Your task to perform on an android device: install app "Clock" Image 0: 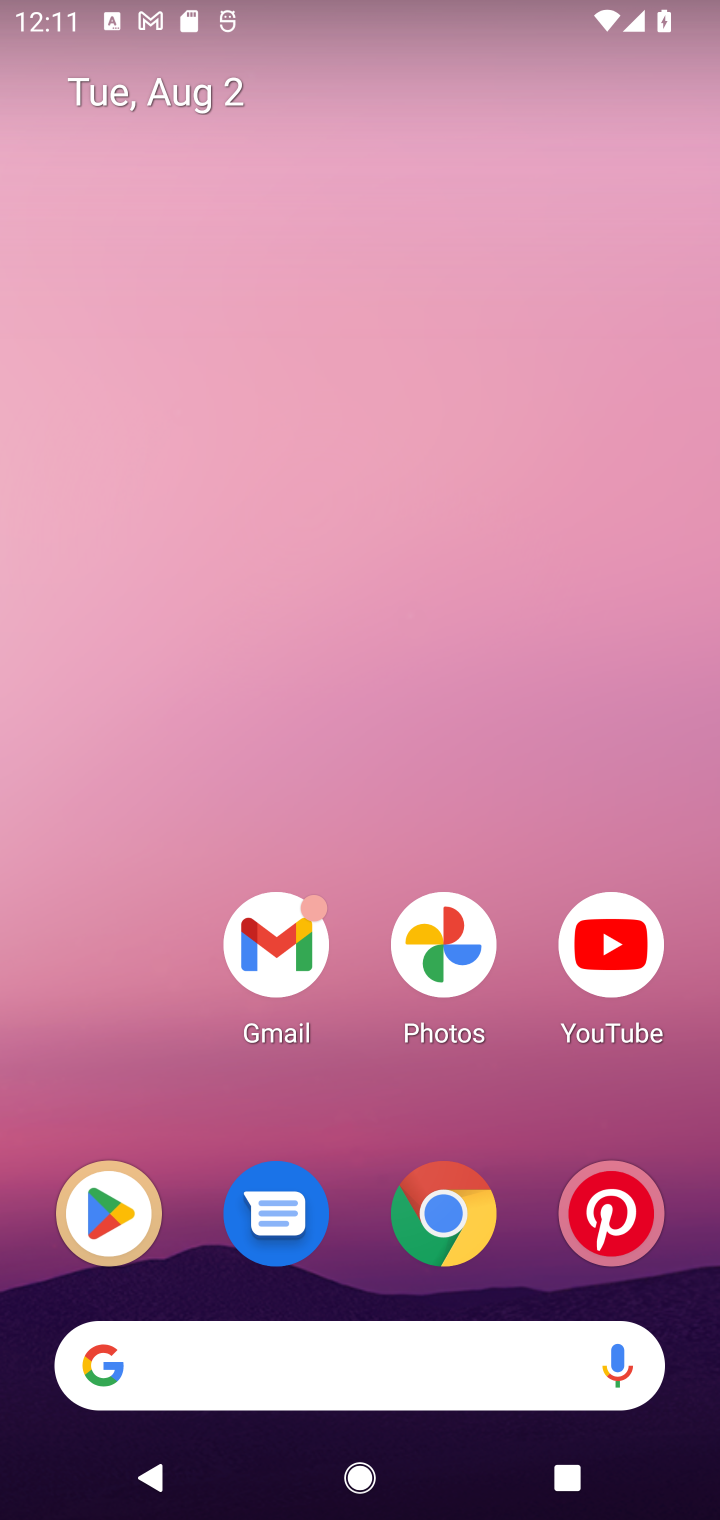
Step 0: click (136, 1216)
Your task to perform on an android device: install app "Clock" Image 1: 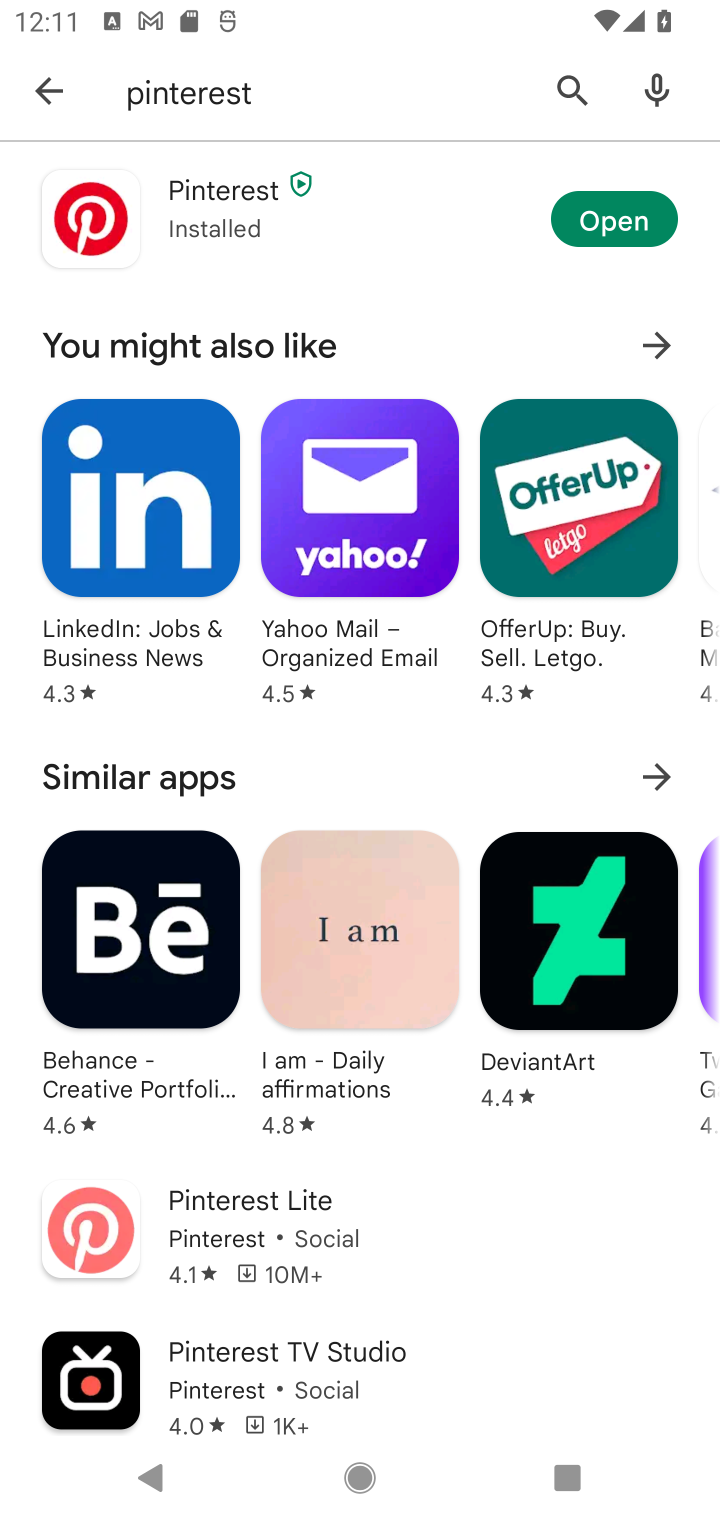
Step 1: click (50, 88)
Your task to perform on an android device: install app "Clock" Image 2: 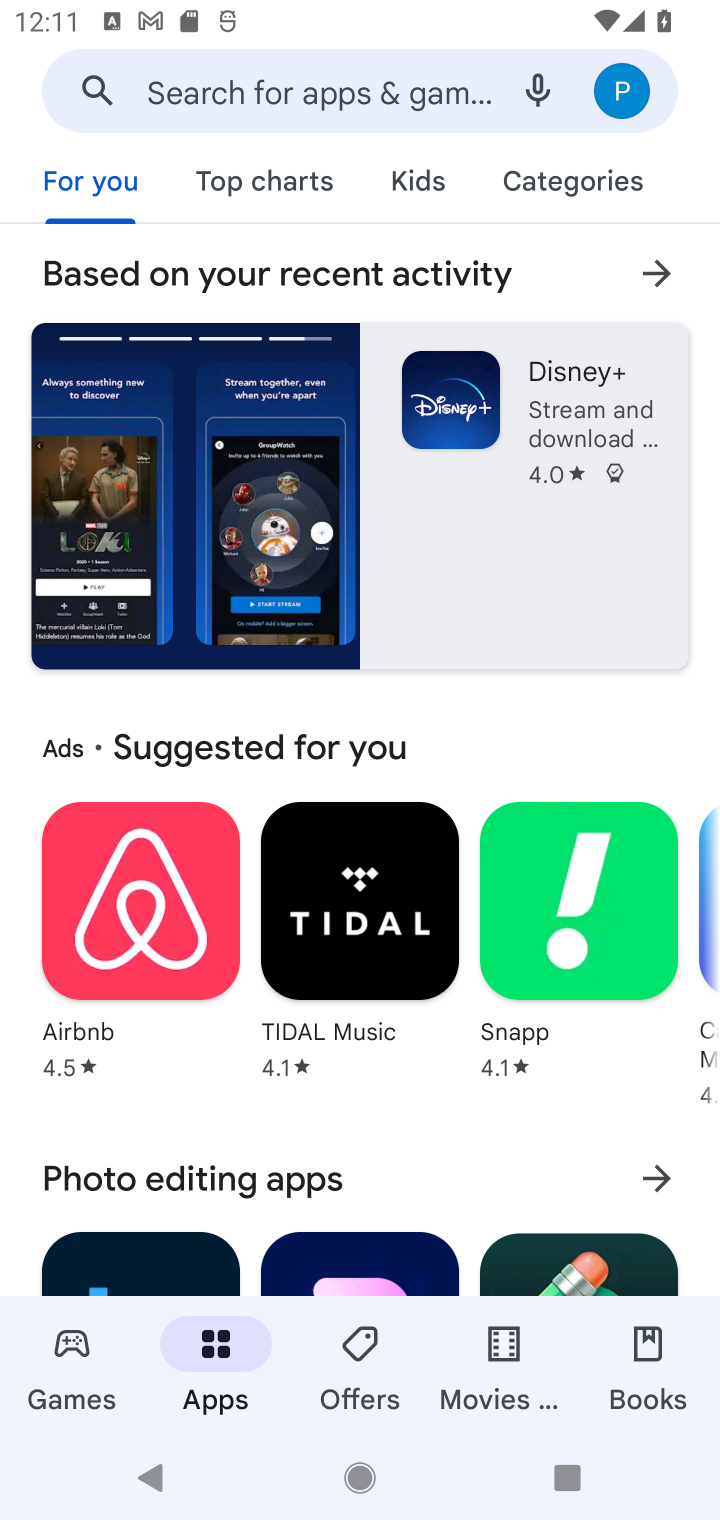
Step 2: click (177, 107)
Your task to perform on an android device: install app "Clock" Image 3: 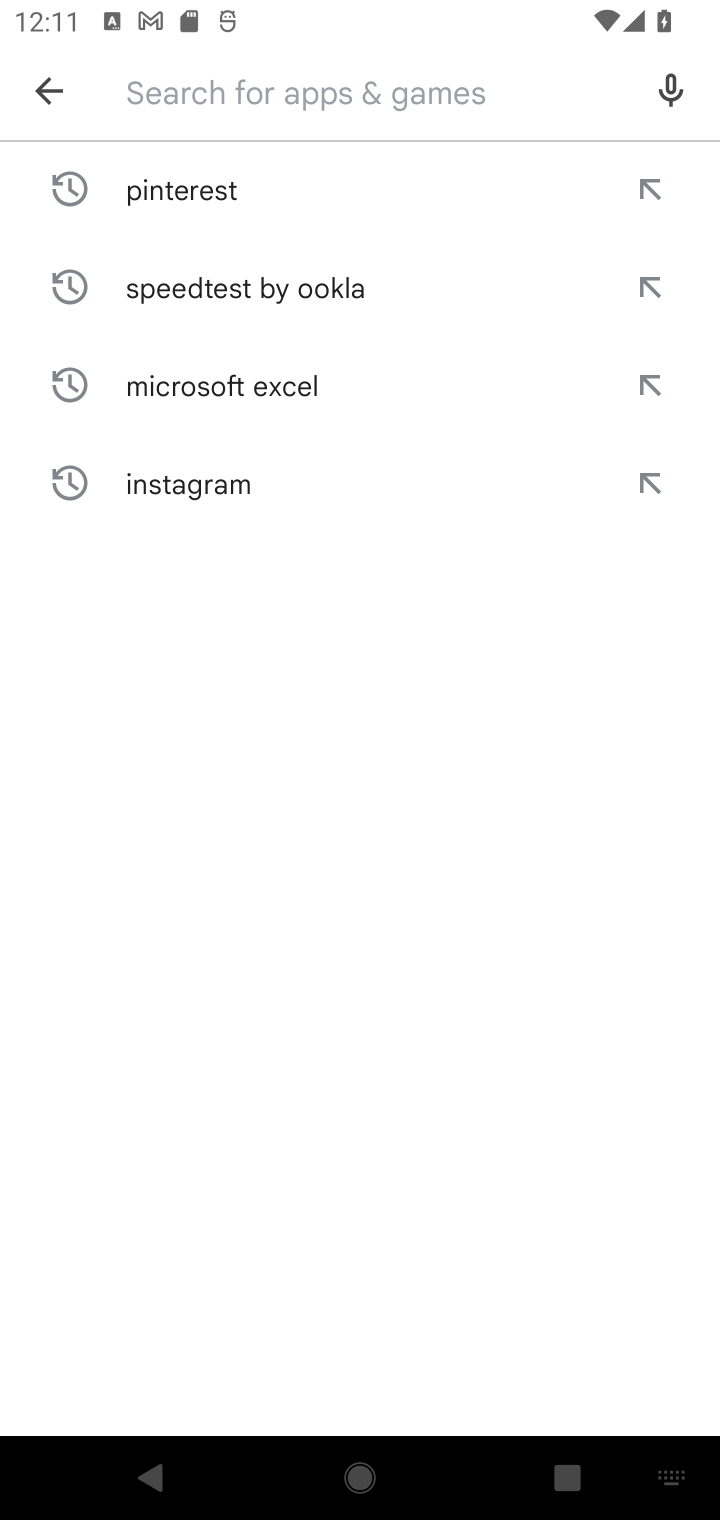
Step 3: type "Clock"
Your task to perform on an android device: install app "Clock" Image 4: 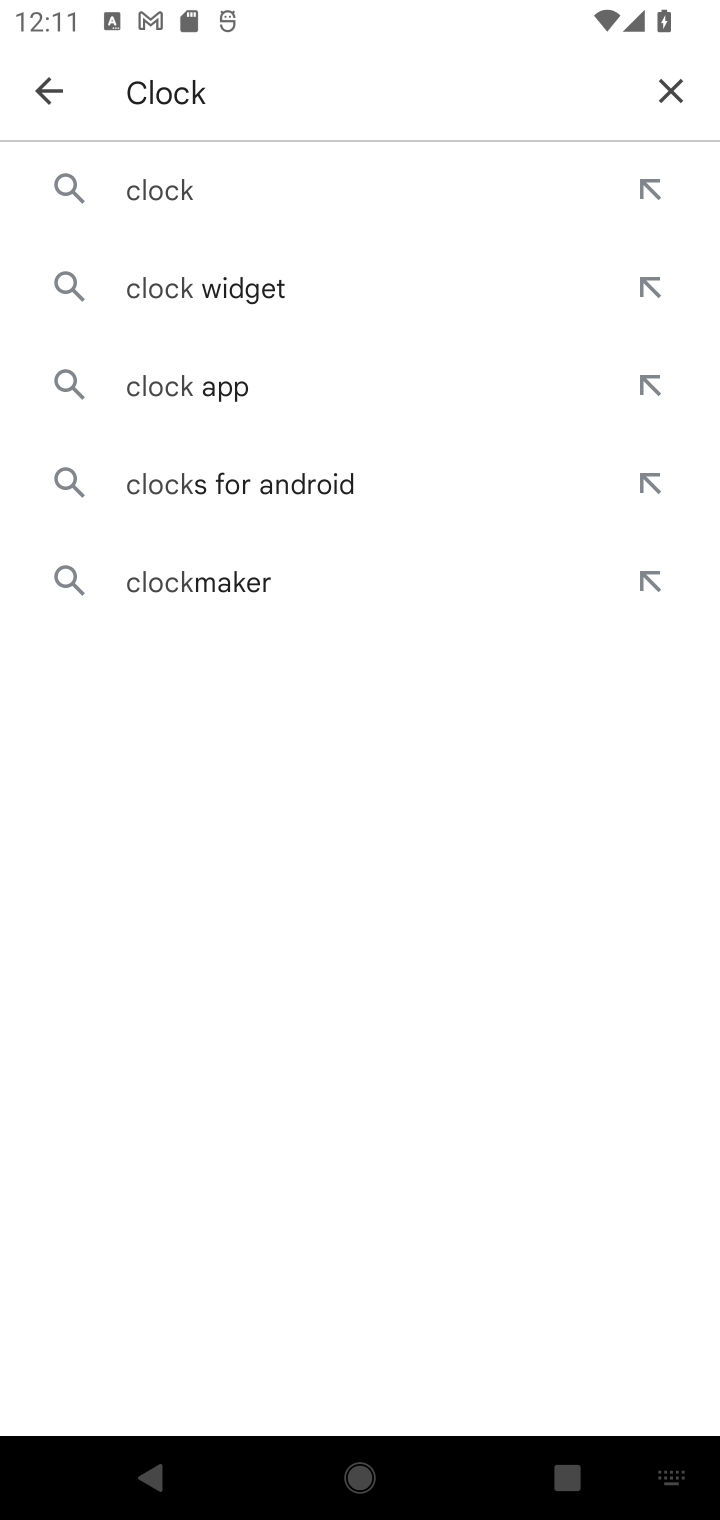
Step 4: click (132, 198)
Your task to perform on an android device: install app "Clock" Image 5: 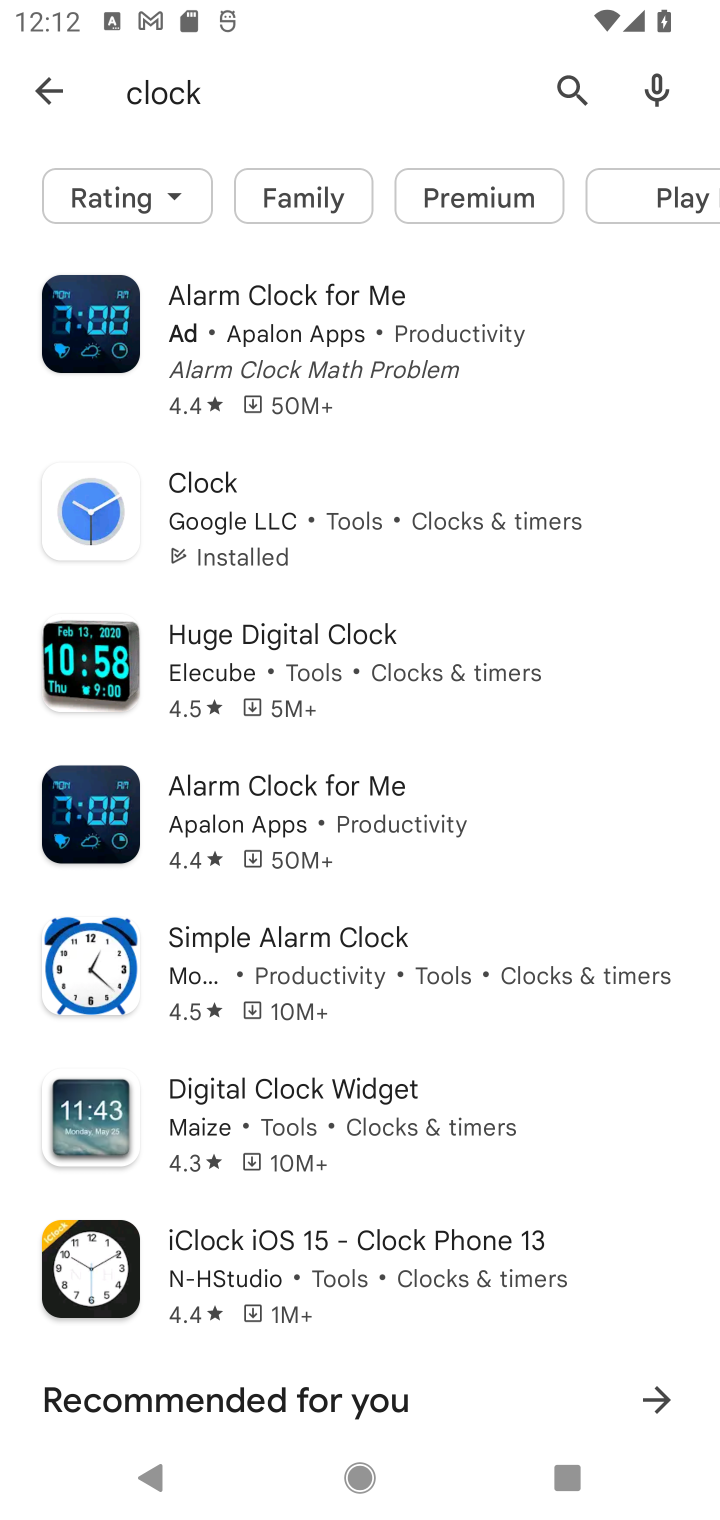
Step 5: click (169, 481)
Your task to perform on an android device: install app "Clock" Image 6: 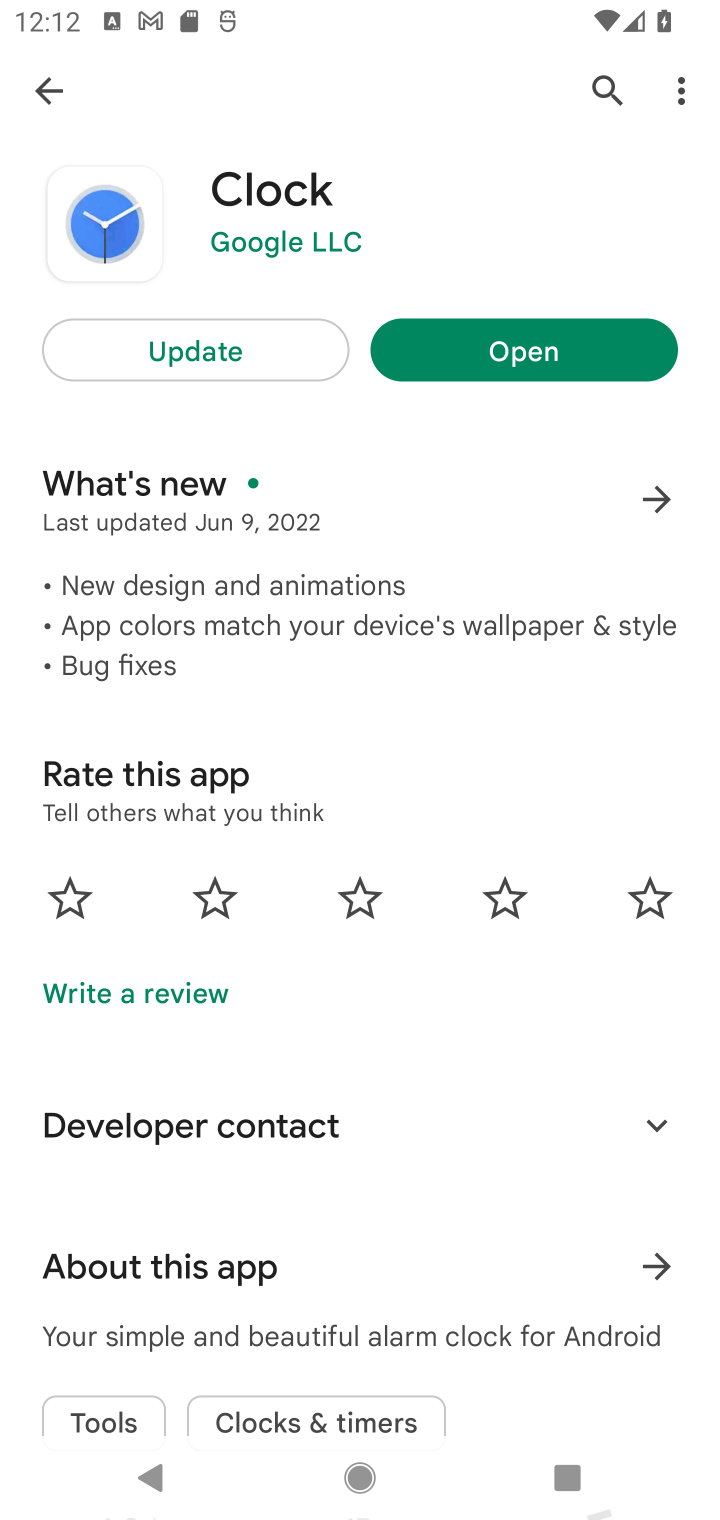
Step 6: task complete